Your task to perform on an android device: Open the calendar and show me this week's events? Image 0: 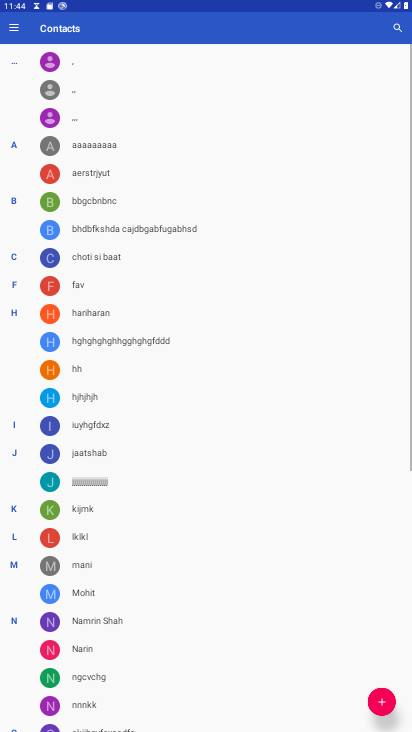
Step 0: press home button
Your task to perform on an android device: Open the calendar and show me this week's events? Image 1: 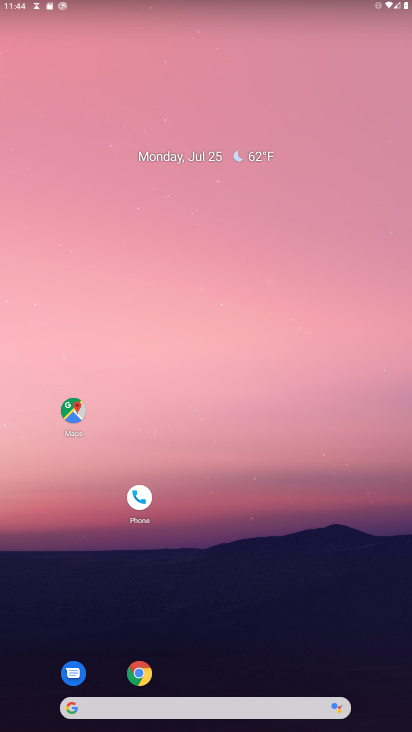
Step 1: drag from (277, 648) to (258, 9)
Your task to perform on an android device: Open the calendar and show me this week's events? Image 2: 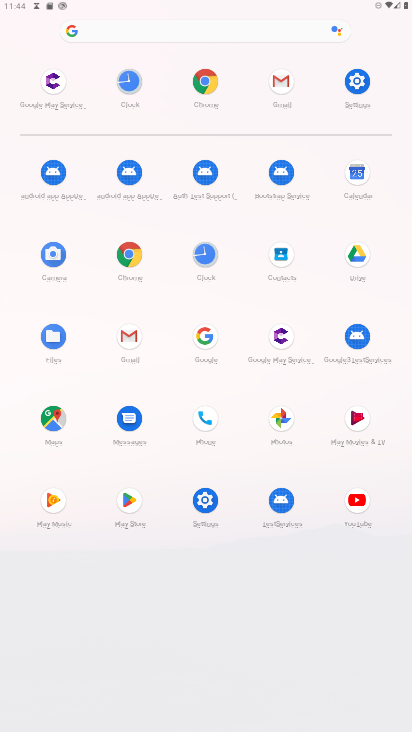
Step 2: click (355, 170)
Your task to perform on an android device: Open the calendar and show me this week's events? Image 3: 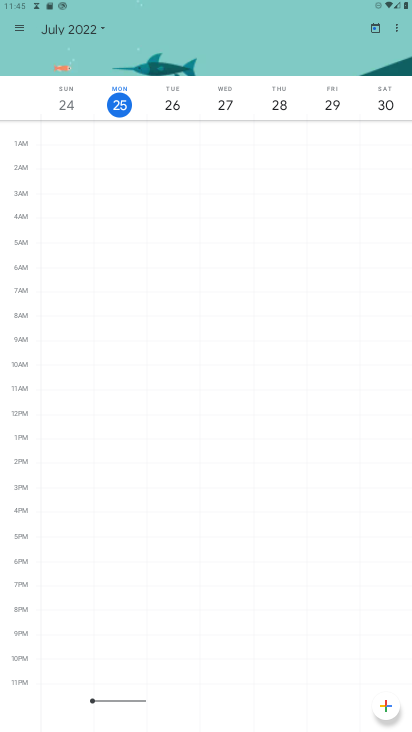
Step 3: click (397, 30)
Your task to perform on an android device: Open the calendar and show me this week's events? Image 4: 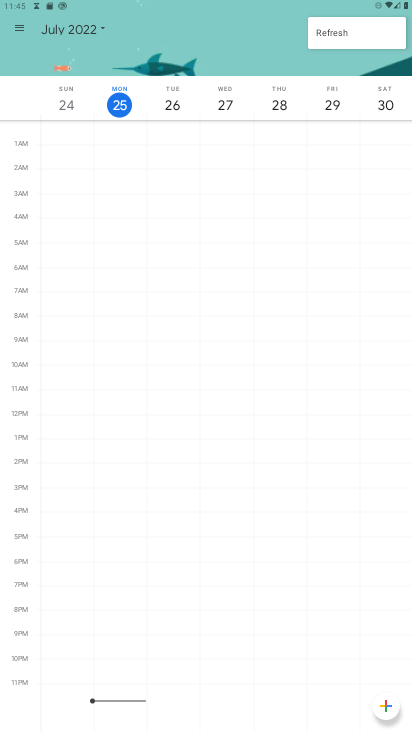
Step 4: click (396, 66)
Your task to perform on an android device: Open the calendar and show me this week's events? Image 5: 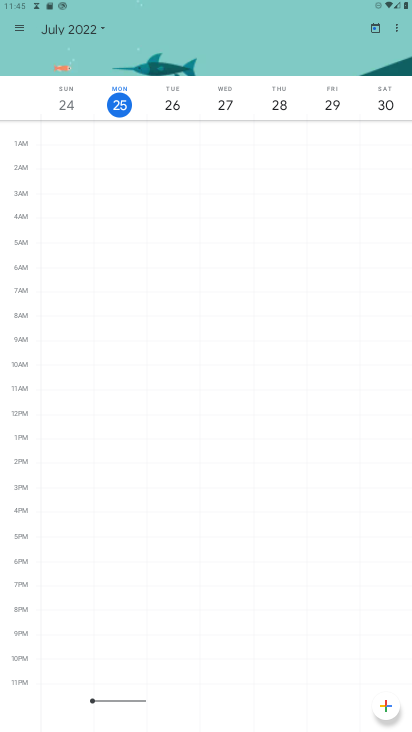
Step 5: click (400, 27)
Your task to perform on an android device: Open the calendar and show me this week's events? Image 6: 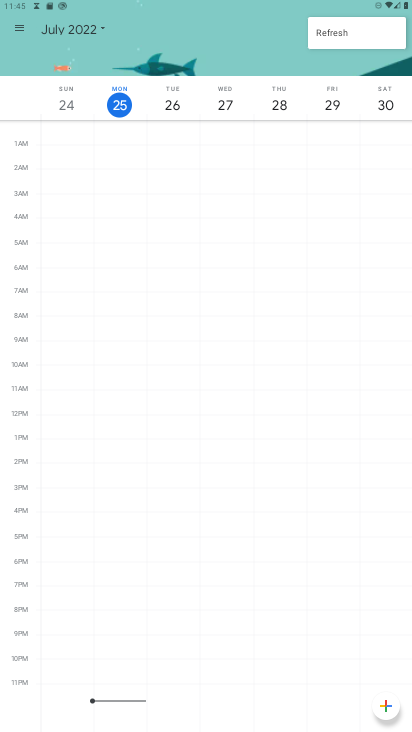
Step 6: click (202, 46)
Your task to perform on an android device: Open the calendar and show me this week's events? Image 7: 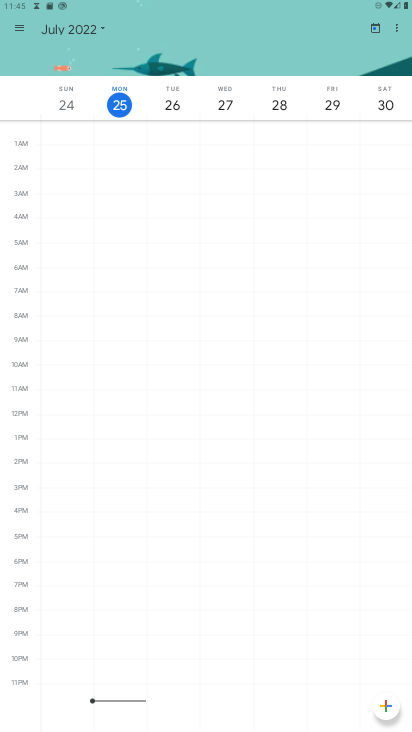
Step 7: task complete